Your task to perform on an android device: Search for runner rugs on Crate & Barrel Image 0: 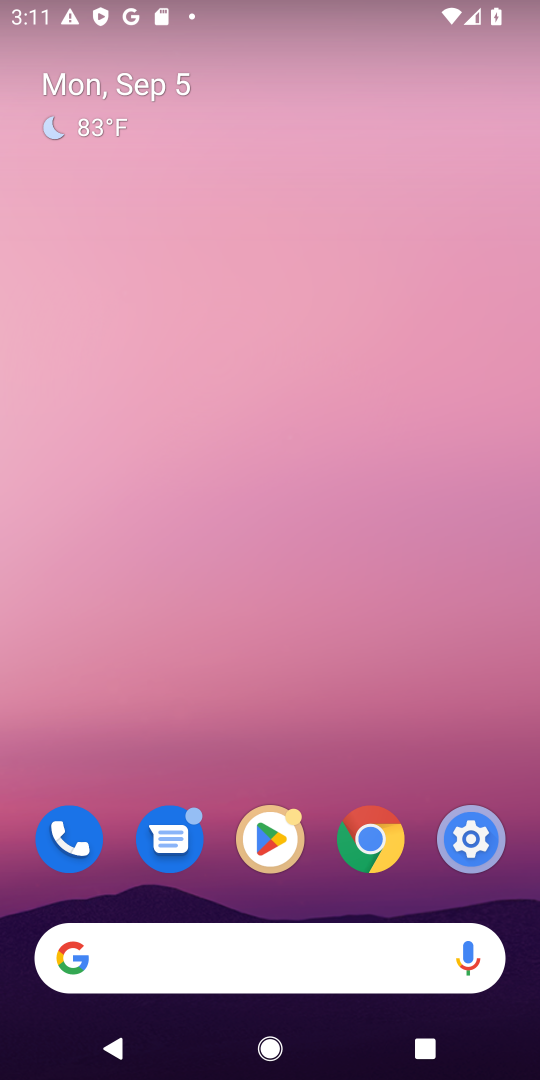
Step 0: click (267, 962)
Your task to perform on an android device: Search for runner rugs on Crate & Barrel Image 1: 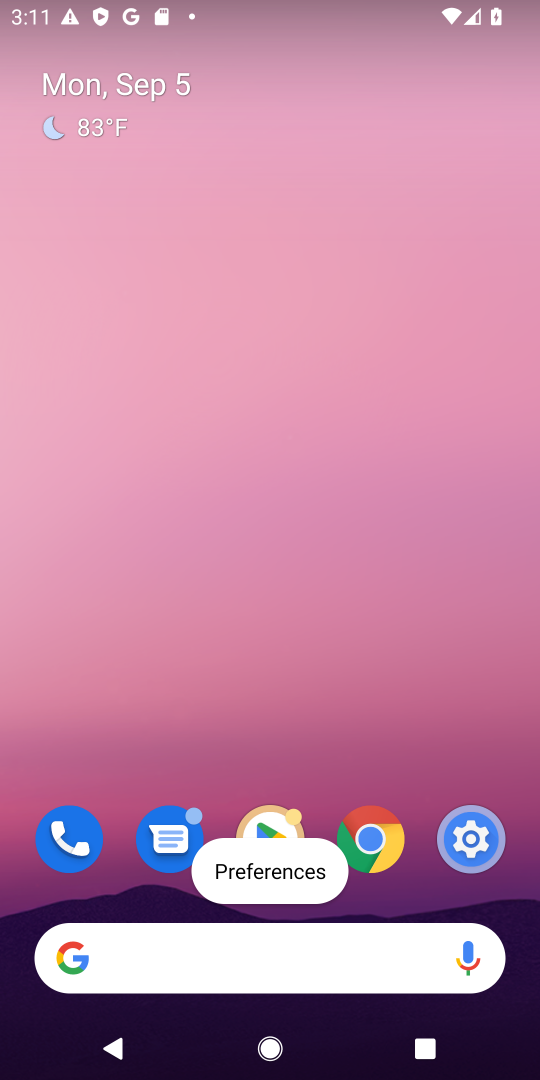
Step 1: click (263, 965)
Your task to perform on an android device: Search for runner rugs on Crate & Barrel Image 2: 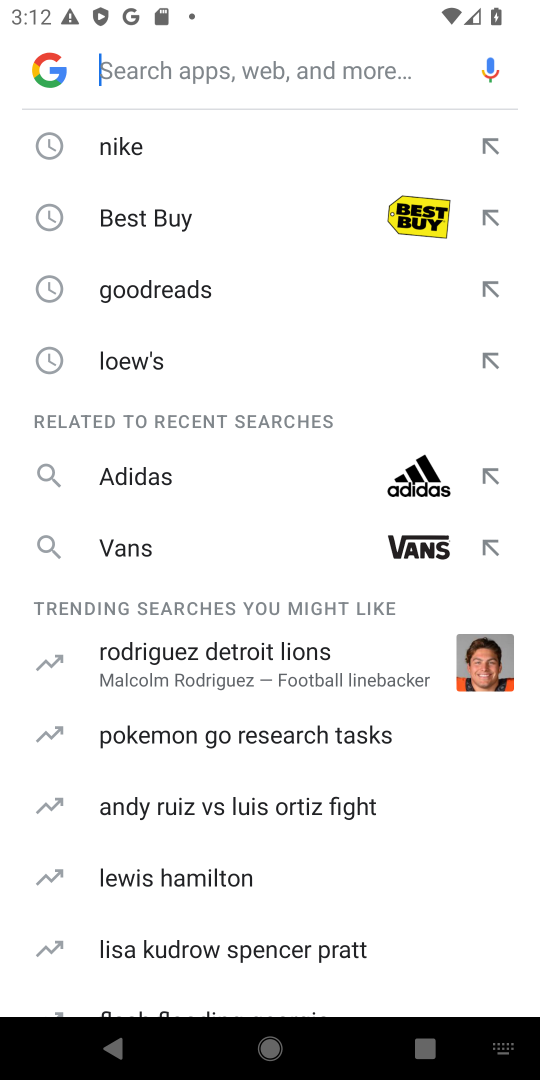
Step 2: click (268, 61)
Your task to perform on an android device: Search for runner rugs on Crate & Barrel Image 3: 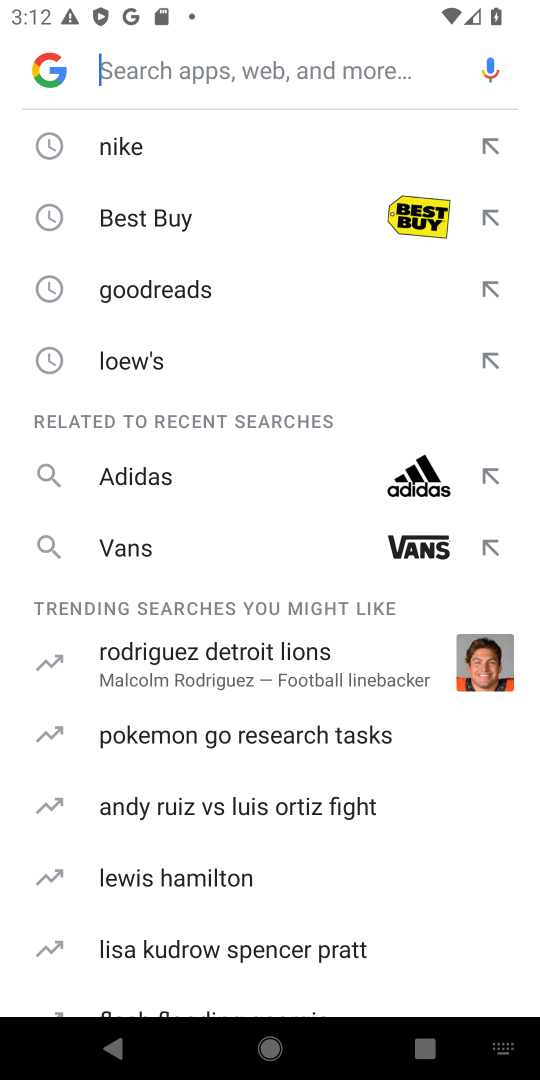
Step 3: type "crate & barrel"
Your task to perform on an android device: Search for runner rugs on Crate & Barrel Image 4: 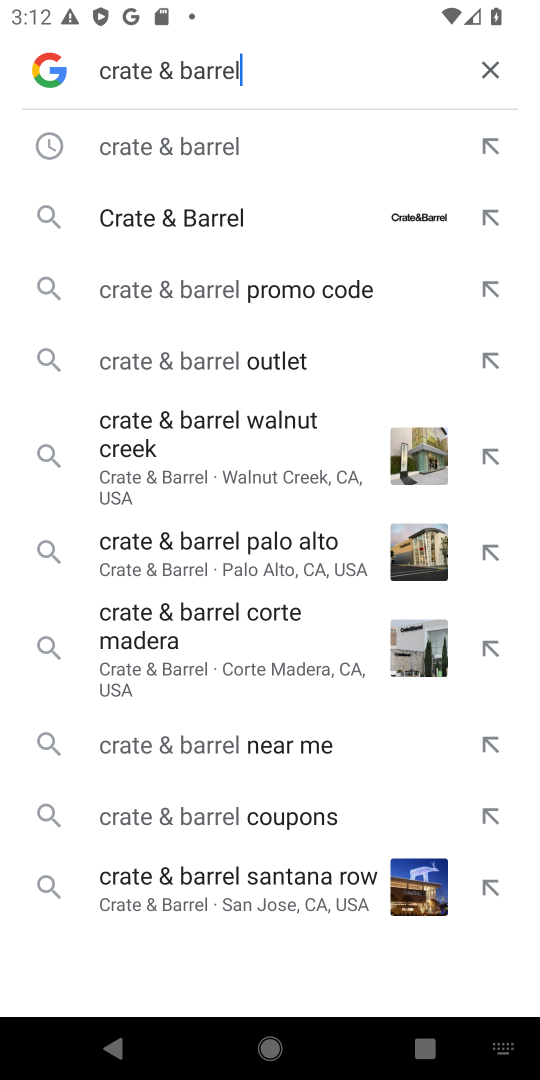
Step 4: press enter
Your task to perform on an android device: Search for runner rugs on Crate & Barrel Image 5: 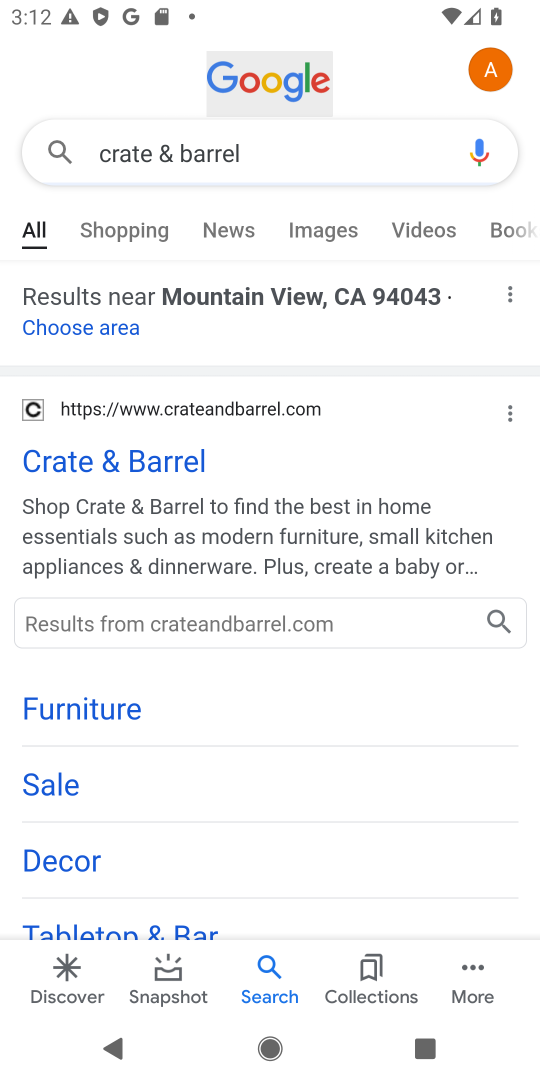
Step 5: click (199, 458)
Your task to perform on an android device: Search for runner rugs on Crate & Barrel Image 6: 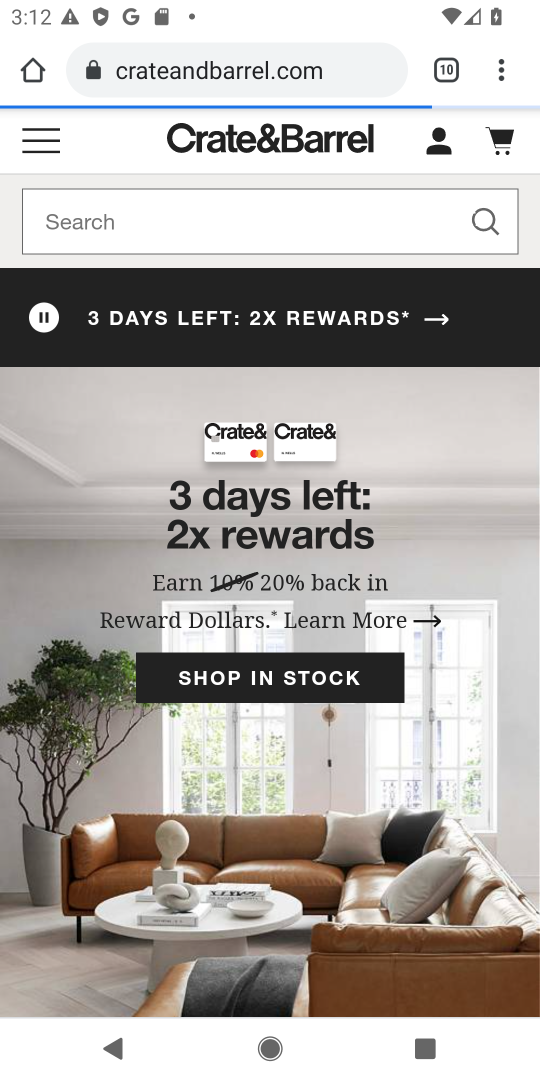
Step 6: click (143, 227)
Your task to perform on an android device: Search for runner rugs on Crate & Barrel Image 7: 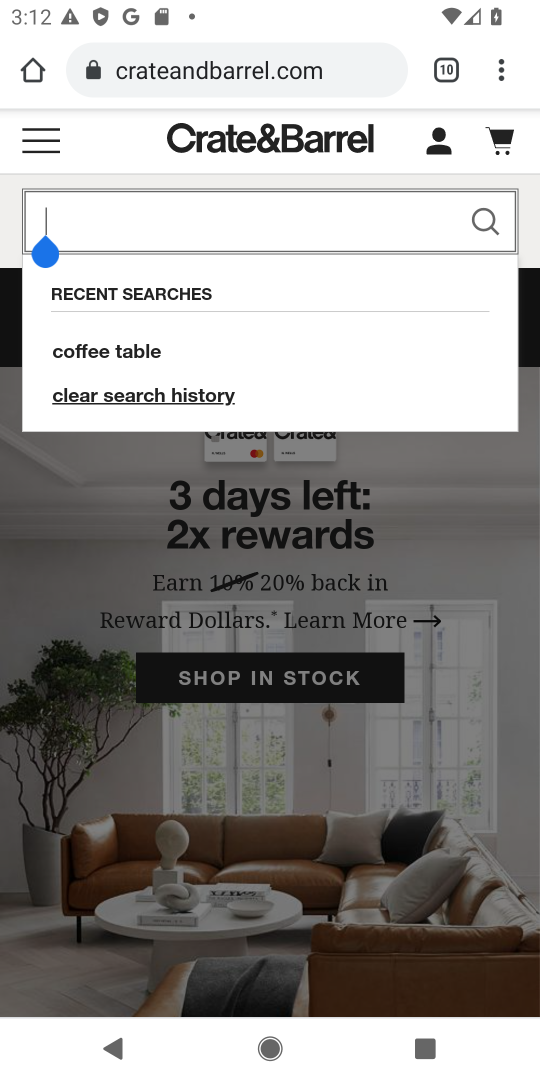
Step 7: click (106, 219)
Your task to perform on an android device: Search for runner rugs on Crate & Barrel Image 8: 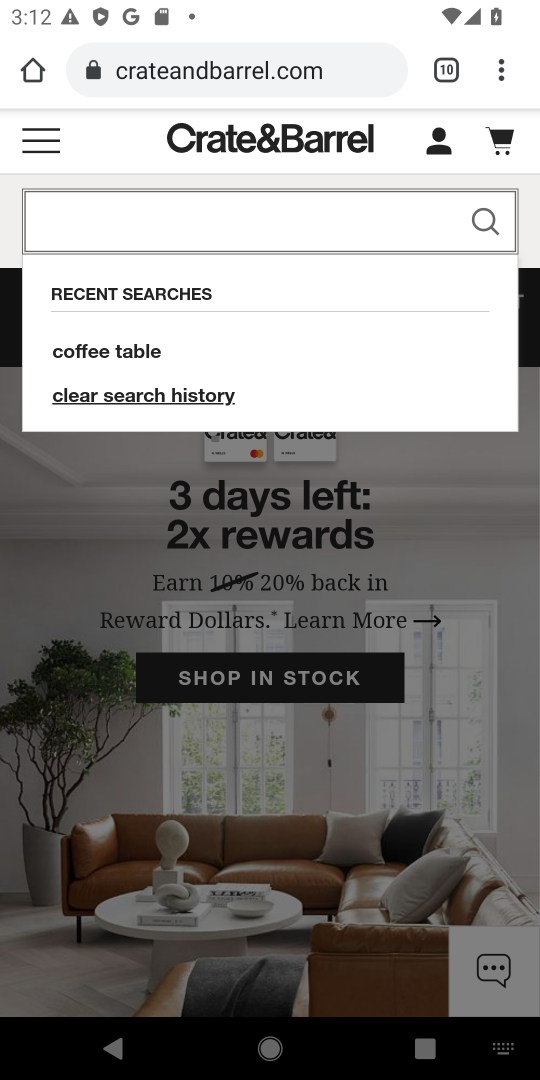
Step 8: type "runner rugs"
Your task to perform on an android device: Search for runner rugs on Crate & Barrel Image 9: 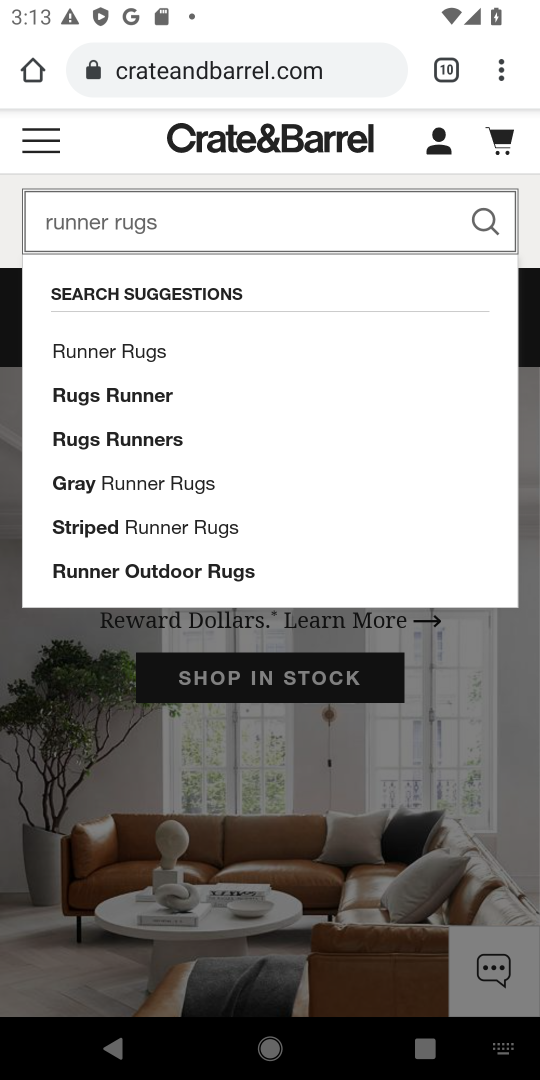
Step 9: press enter
Your task to perform on an android device: Search for runner rugs on Crate & Barrel Image 10: 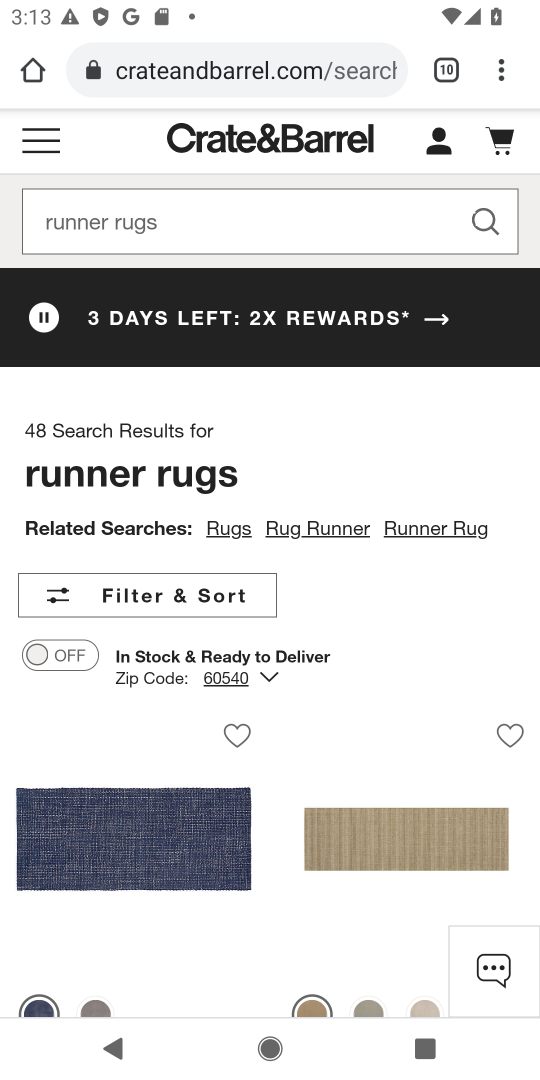
Step 10: click (224, 599)
Your task to perform on an android device: Search for runner rugs on Crate & Barrel Image 11: 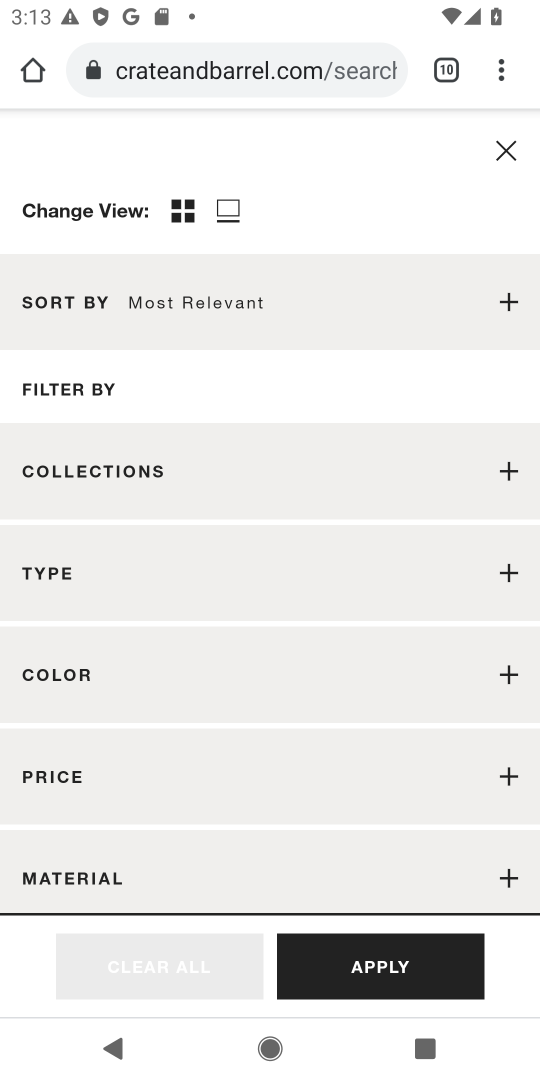
Step 11: click (426, 972)
Your task to perform on an android device: Search for runner rugs on Crate & Barrel Image 12: 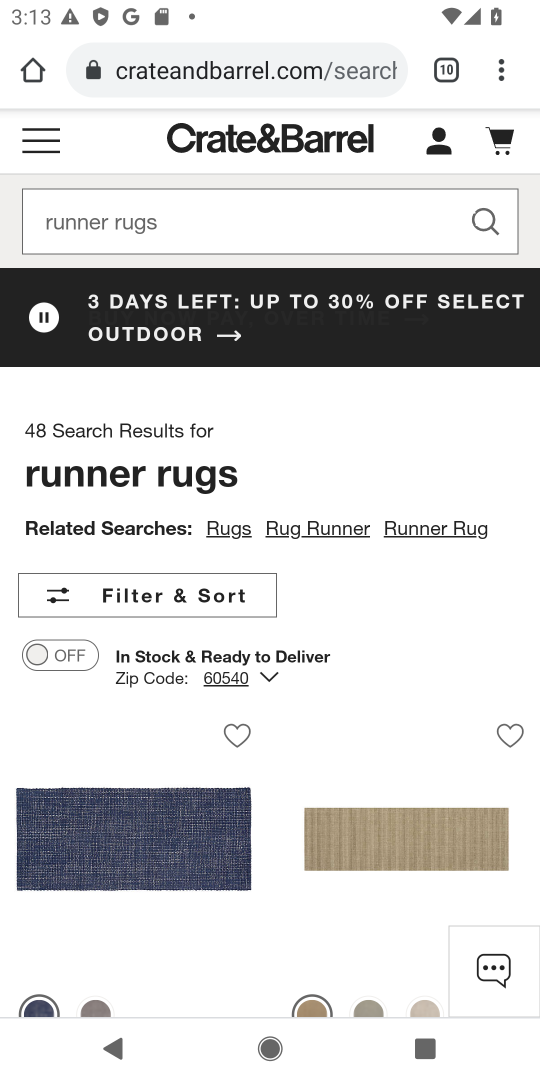
Step 12: task complete